Your task to perform on an android device: Go to internet settings Image 0: 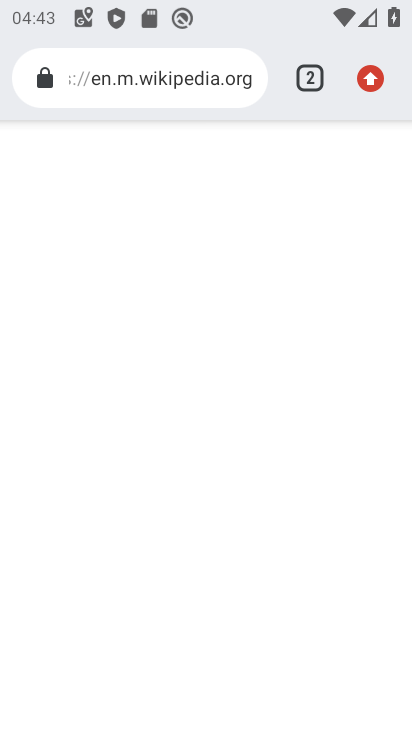
Step 0: drag from (209, 5) to (193, 699)
Your task to perform on an android device: Go to internet settings Image 1: 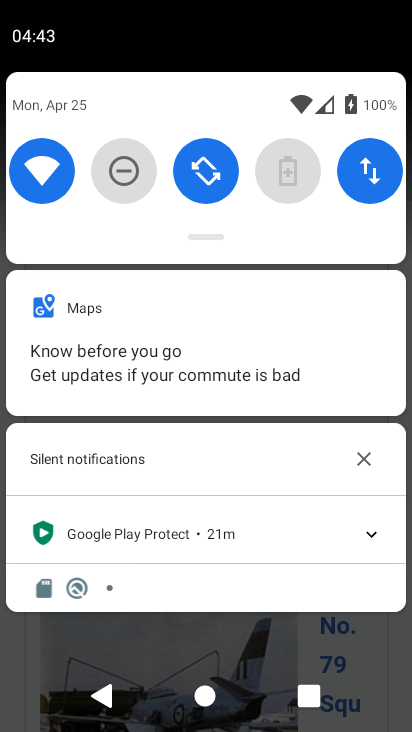
Step 1: drag from (248, 99) to (205, 646)
Your task to perform on an android device: Go to internet settings Image 2: 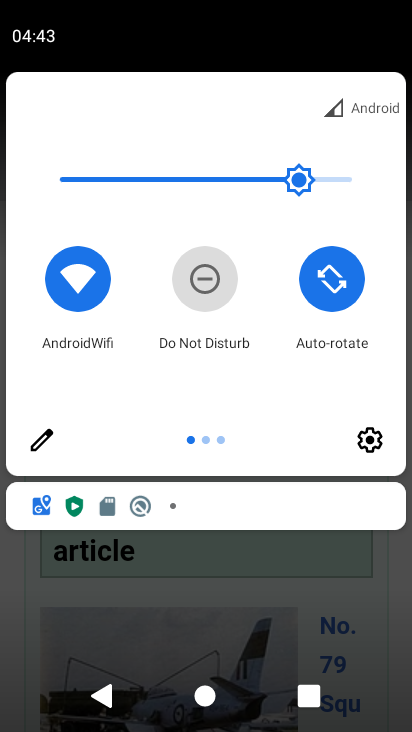
Step 2: click (366, 440)
Your task to perform on an android device: Go to internet settings Image 3: 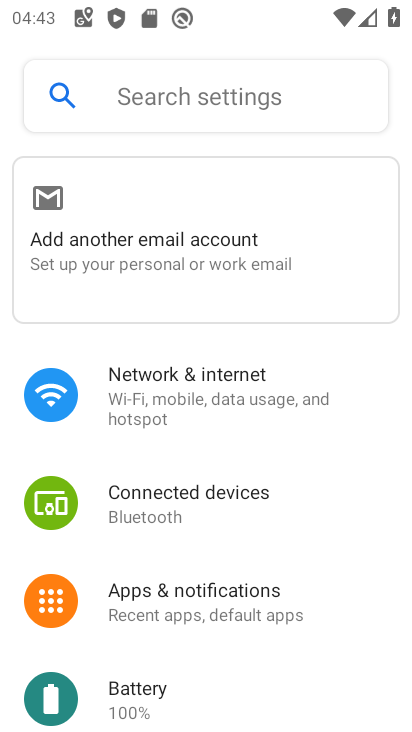
Step 3: click (193, 404)
Your task to perform on an android device: Go to internet settings Image 4: 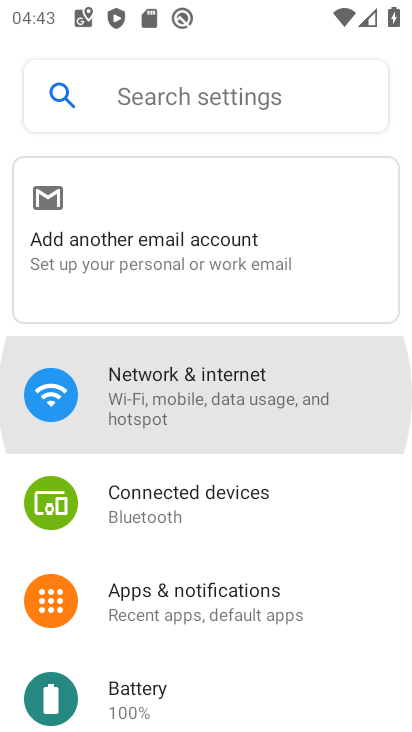
Step 4: click (193, 404)
Your task to perform on an android device: Go to internet settings Image 5: 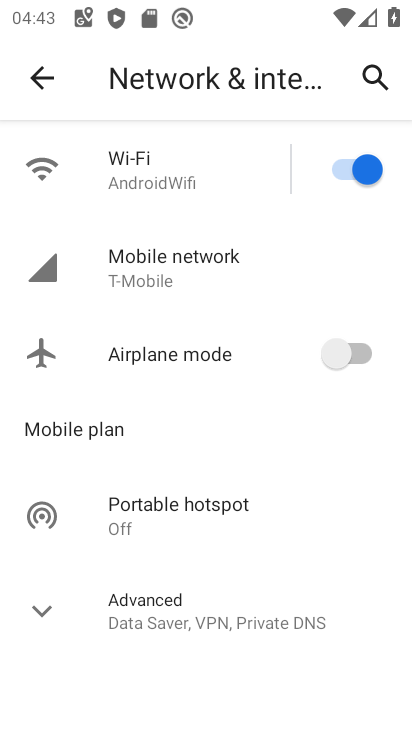
Step 5: click (217, 247)
Your task to perform on an android device: Go to internet settings Image 6: 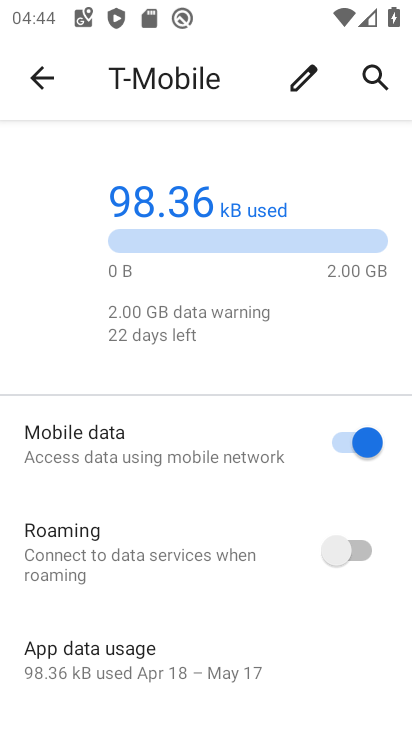
Step 6: task complete